Your task to perform on an android device: turn off improve location accuracy Image 0: 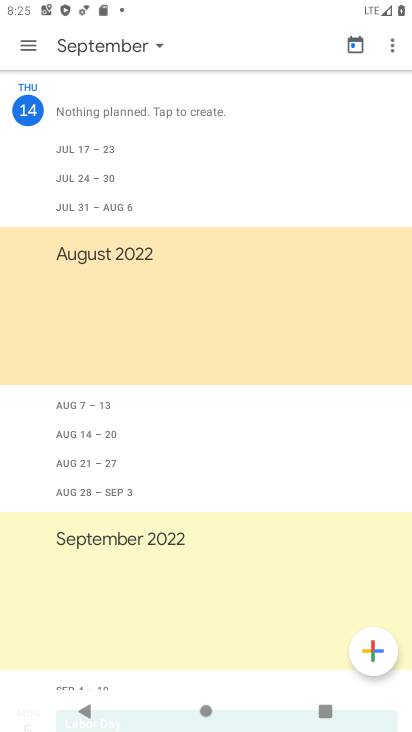
Step 0: press home button
Your task to perform on an android device: turn off improve location accuracy Image 1: 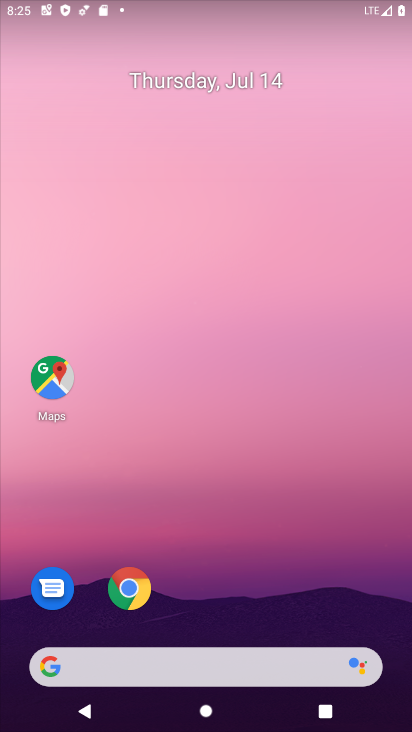
Step 1: drag from (399, 628) to (150, 35)
Your task to perform on an android device: turn off improve location accuracy Image 2: 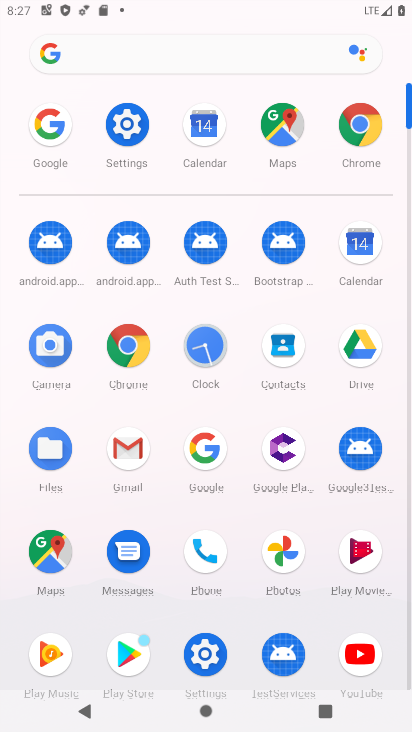
Step 2: click (205, 644)
Your task to perform on an android device: turn off improve location accuracy Image 3: 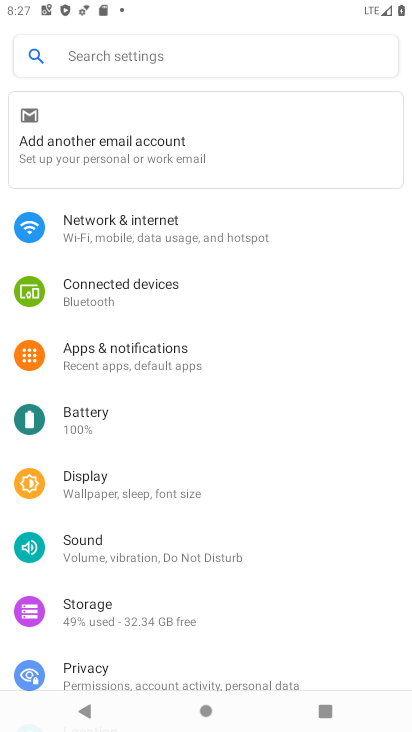
Step 3: drag from (146, 656) to (159, 161)
Your task to perform on an android device: turn off improve location accuracy Image 4: 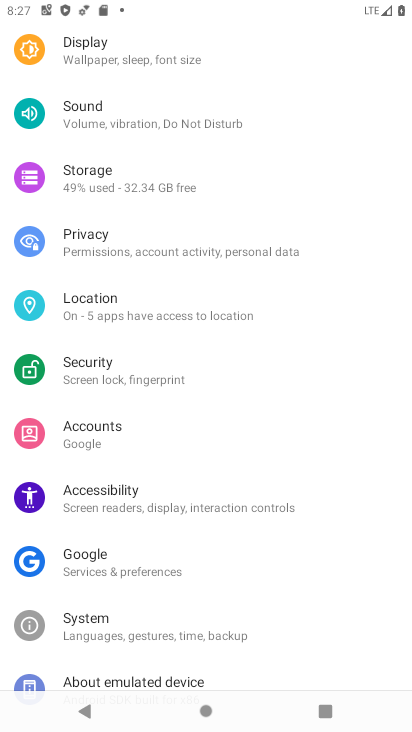
Step 4: click (100, 303)
Your task to perform on an android device: turn off improve location accuracy Image 5: 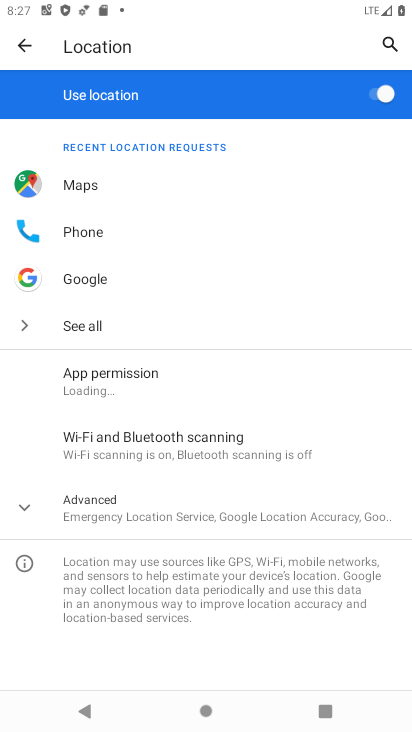
Step 5: click (133, 490)
Your task to perform on an android device: turn off improve location accuracy Image 6: 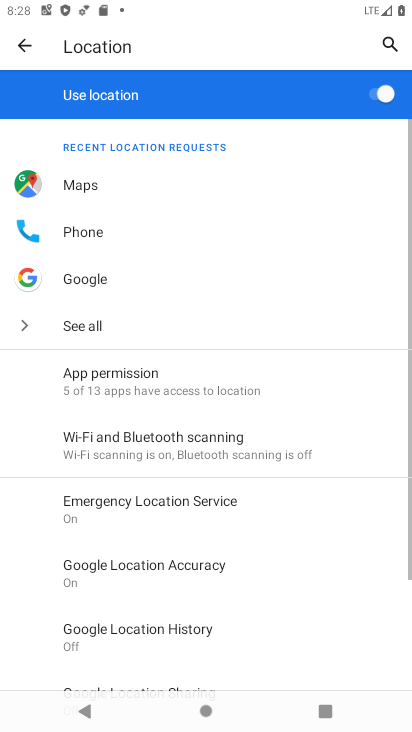
Step 6: click (184, 575)
Your task to perform on an android device: turn off improve location accuracy Image 7: 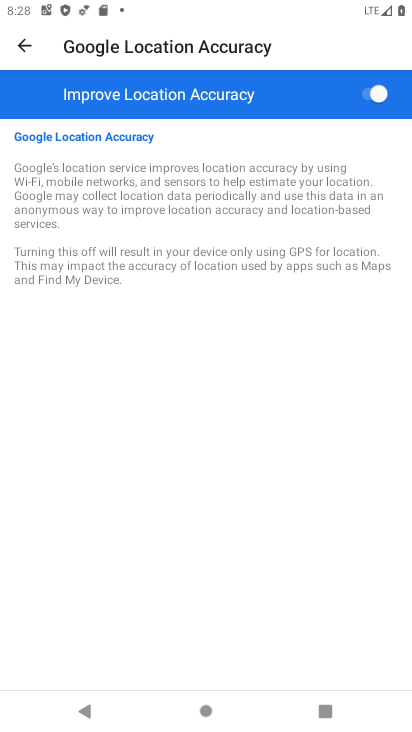
Step 7: click (346, 98)
Your task to perform on an android device: turn off improve location accuracy Image 8: 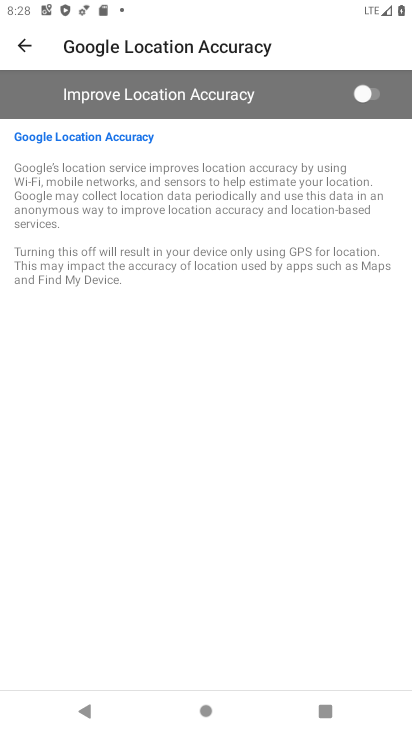
Step 8: task complete